Your task to perform on an android device: set the timer Image 0: 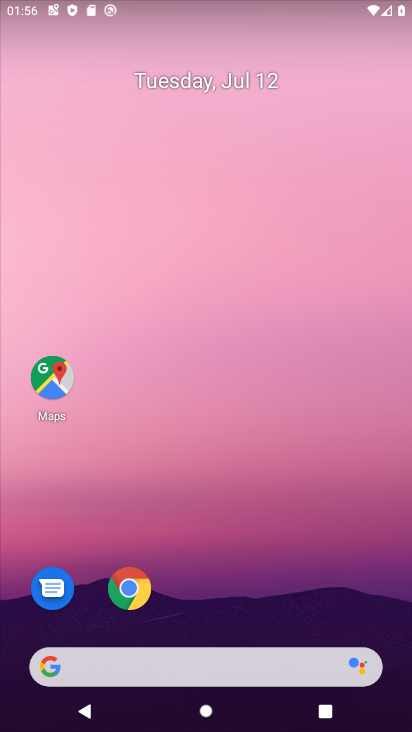
Step 0: drag from (224, 625) to (219, 35)
Your task to perform on an android device: set the timer Image 1: 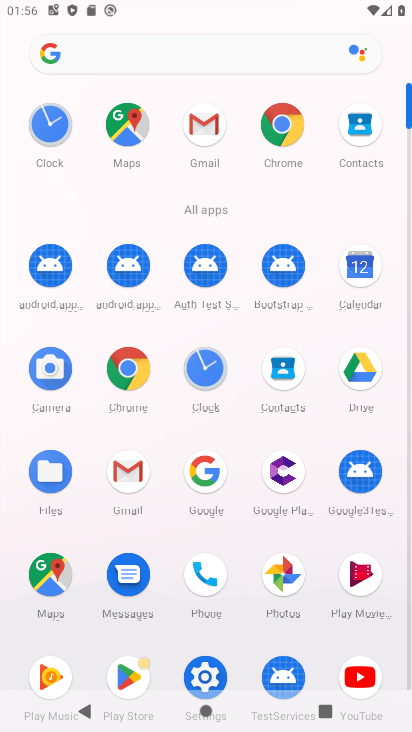
Step 1: click (46, 135)
Your task to perform on an android device: set the timer Image 2: 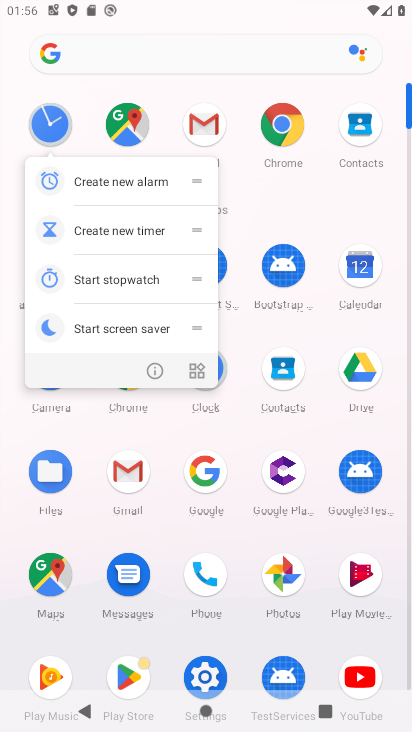
Step 2: click (56, 113)
Your task to perform on an android device: set the timer Image 3: 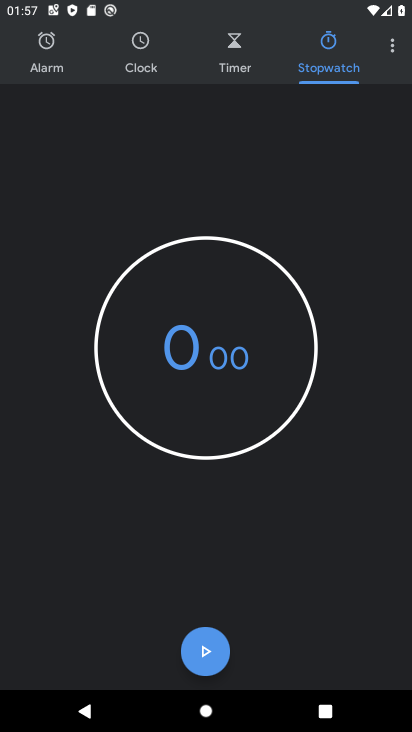
Step 3: click (236, 38)
Your task to perform on an android device: set the timer Image 4: 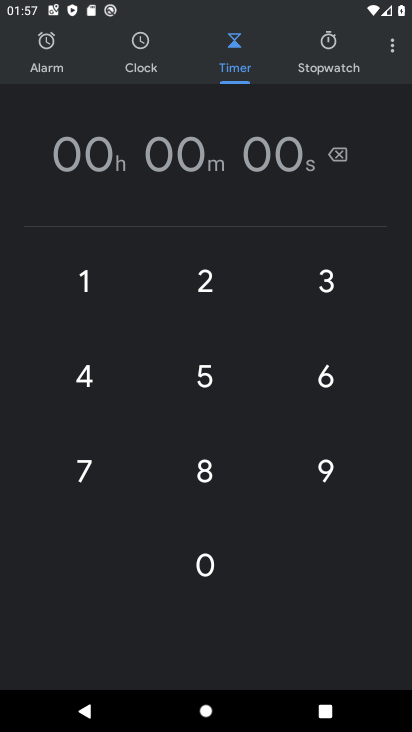
Step 4: task complete